Your task to perform on an android device: turn on the 12-hour format for clock Image 0: 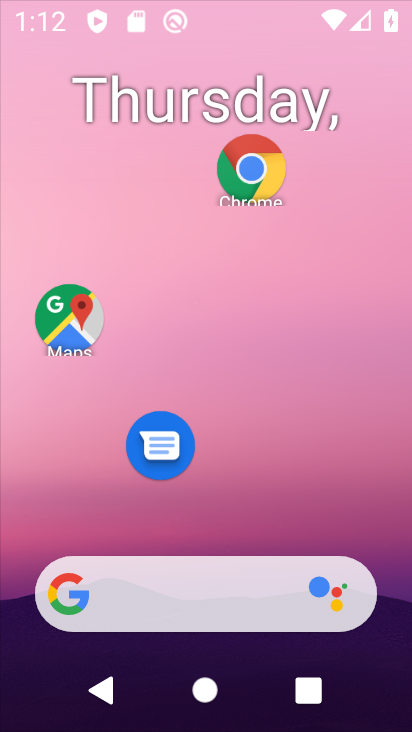
Step 0: press home button
Your task to perform on an android device: turn on the 12-hour format for clock Image 1: 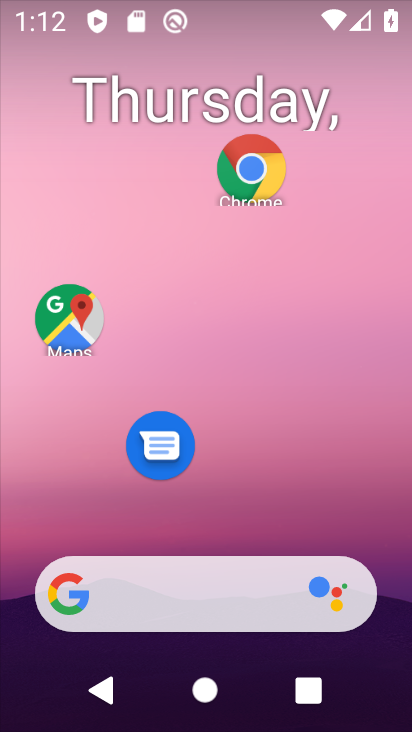
Step 1: drag from (351, 204) to (347, 139)
Your task to perform on an android device: turn on the 12-hour format for clock Image 2: 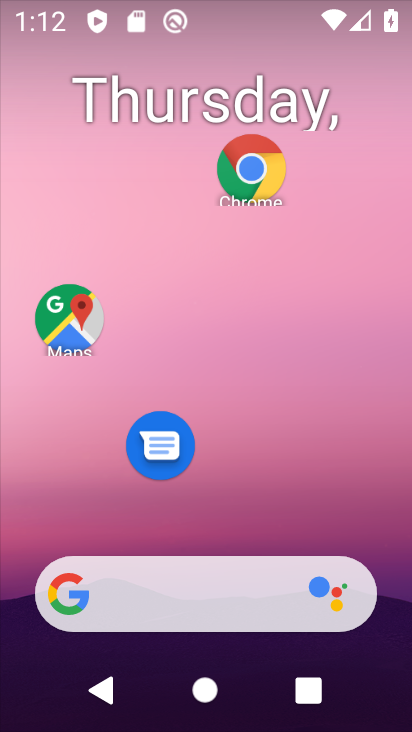
Step 2: drag from (278, 573) to (410, 71)
Your task to perform on an android device: turn on the 12-hour format for clock Image 3: 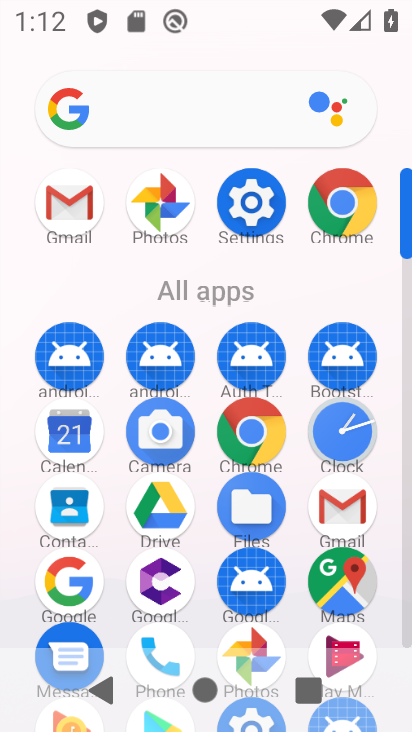
Step 3: click (342, 419)
Your task to perform on an android device: turn on the 12-hour format for clock Image 4: 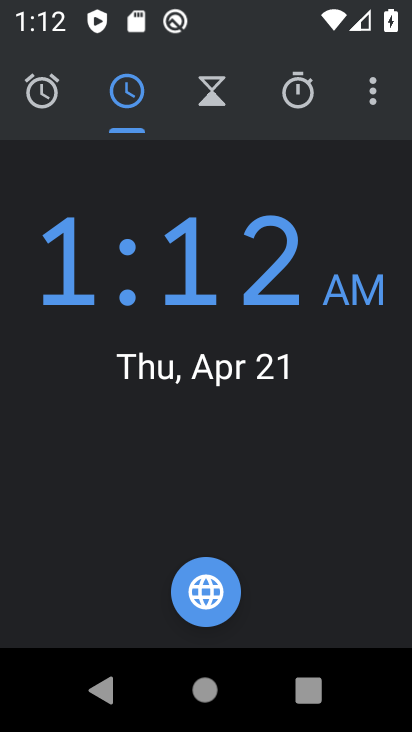
Step 4: click (372, 91)
Your task to perform on an android device: turn on the 12-hour format for clock Image 5: 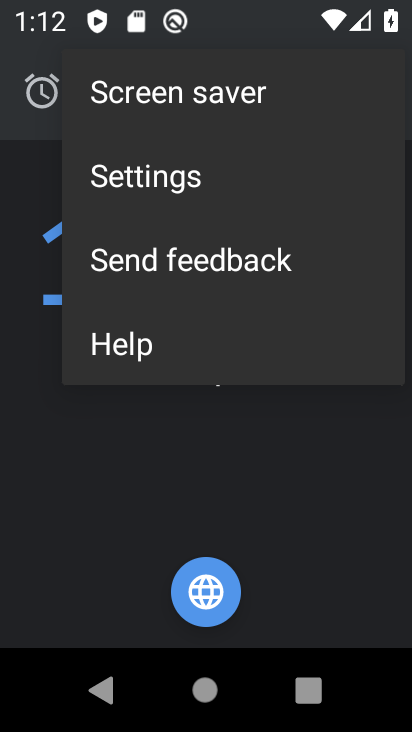
Step 5: click (158, 187)
Your task to perform on an android device: turn on the 12-hour format for clock Image 6: 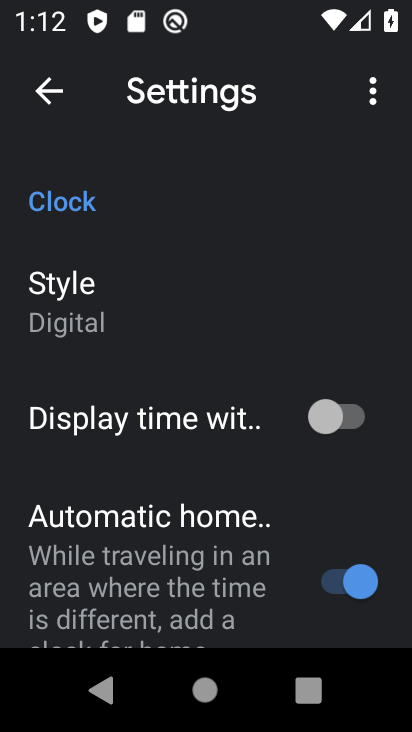
Step 6: drag from (138, 562) to (171, 161)
Your task to perform on an android device: turn on the 12-hour format for clock Image 7: 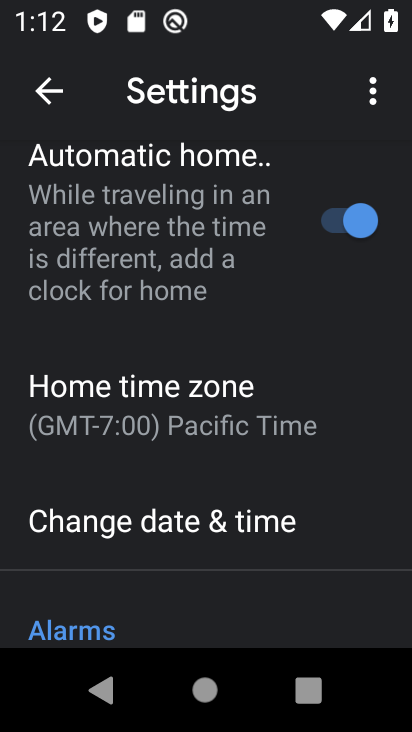
Step 7: click (143, 511)
Your task to perform on an android device: turn on the 12-hour format for clock Image 8: 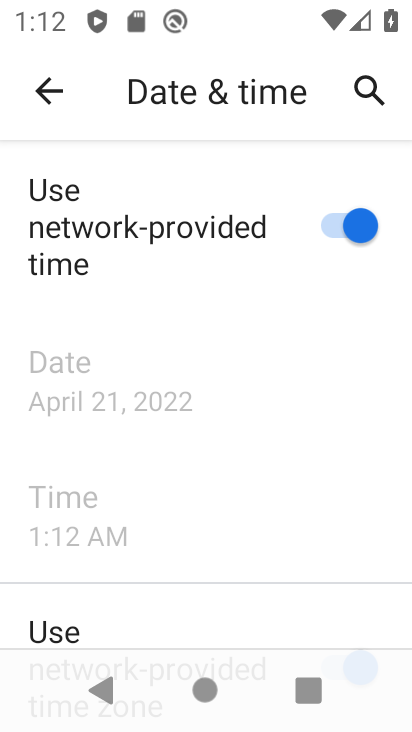
Step 8: drag from (131, 542) to (208, 353)
Your task to perform on an android device: turn on the 12-hour format for clock Image 9: 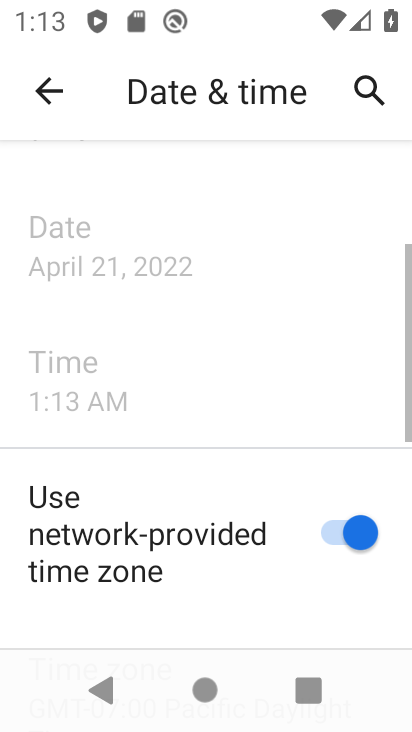
Step 9: drag from (189, 430) to (288, 220)
Your task to perform on an android device: turn on the 12-hour format for clock Image 10: 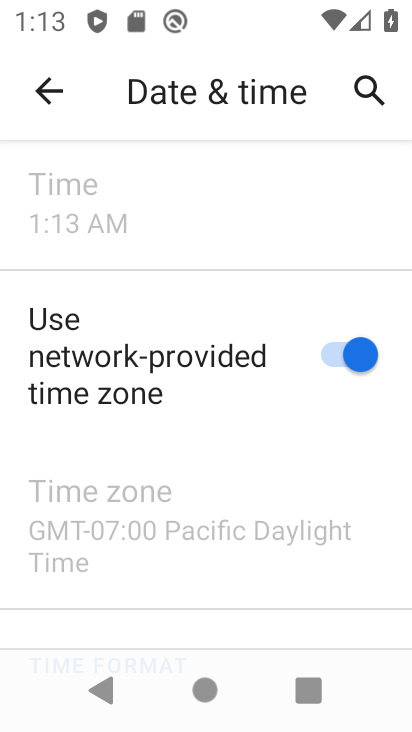
Step 10: drag from (210, 563) to (292, 425)
Your task to perform on an android device: turn on the 12-hour format for clock Image 11: 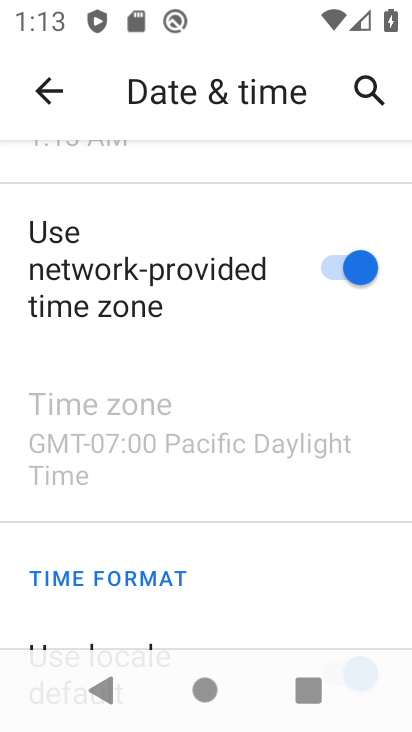
Step 11: drag from (337, 475) to (353, 242)
Your task to perform on an android device: turn on the 12-hour format for clock Image 12: 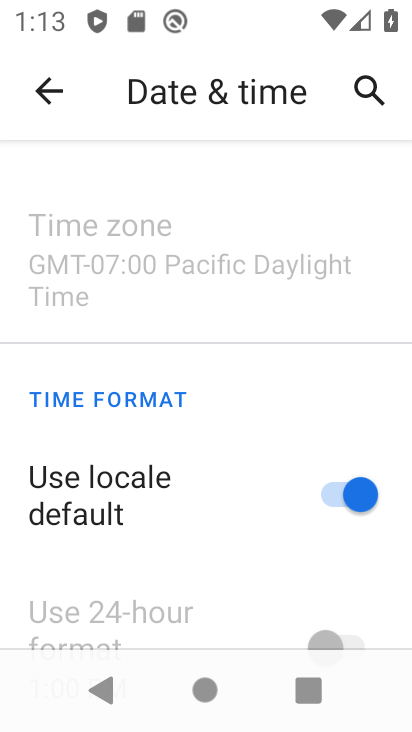
Step 12: drag from (277, 436) to (317, 192)
Your task to perform on an android device: turn on the 12-hour format for clock Image 13: 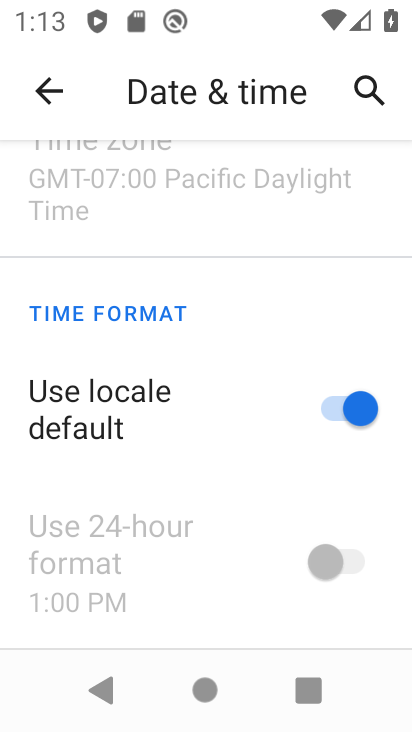
Step 13: click (354, 414)
Your task to perform on an android device: turn on the 12-hour format for clock Image 14: 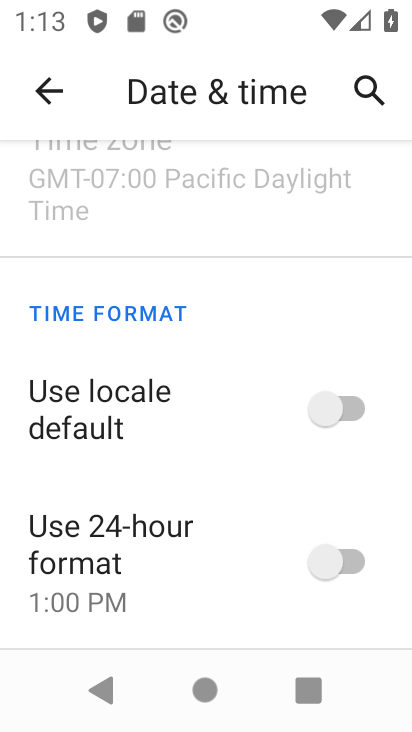
Step 14: click (352, 562)
Your task to perform on an android device: turn on the 12-hour format for clock Image 15: 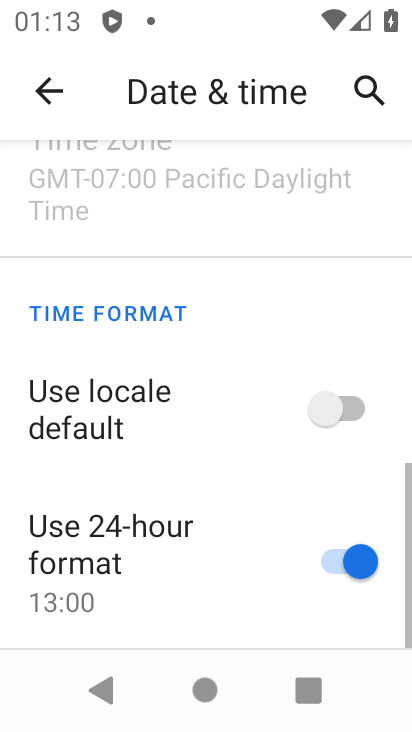
Step 15: click (346, 553)
Your task to perform on an android device: turn on the 12-hour format for clock Image 16: 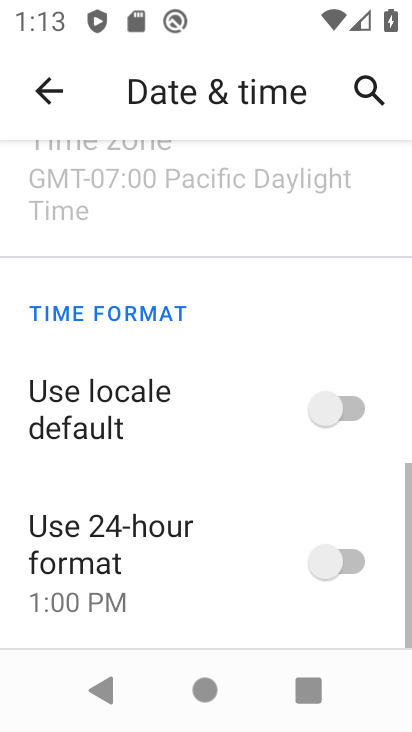
Step 16: task complete